Your task to perform on an android device: delete browsing data in the chrome app Image 0: 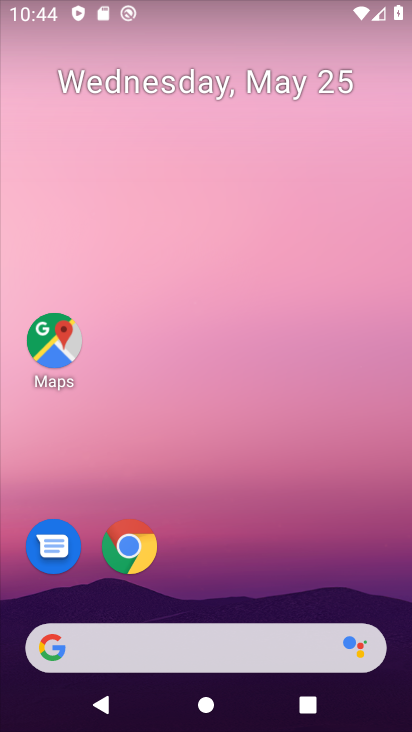
Step 0: click (140, 560)
Your task to perform on an android device: delete browsing data in the chrome app Image 1: 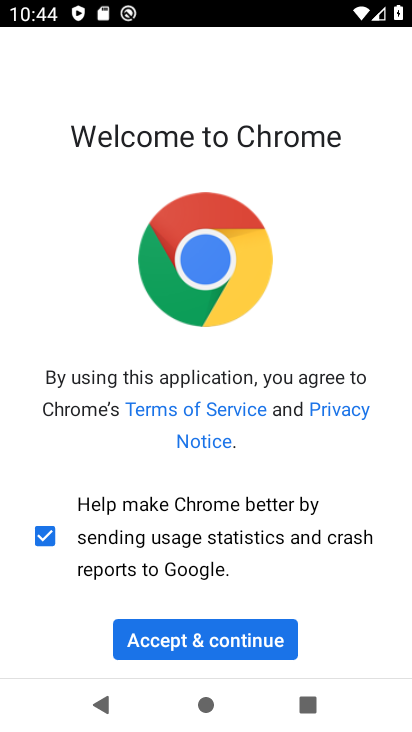
Step 1: click (246, 655)
Your task to perform on an android device: delete browsing data in the chrome app Image 2: 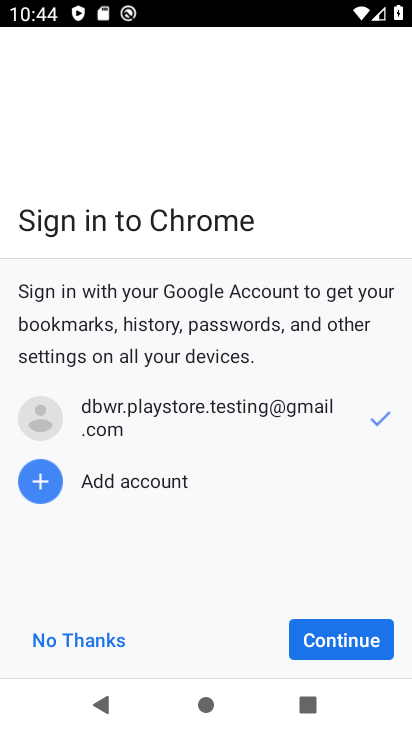
Step 2: click (364, 643)
Your task to perform on an android device: delete browsing data in the chrome app Image 3: 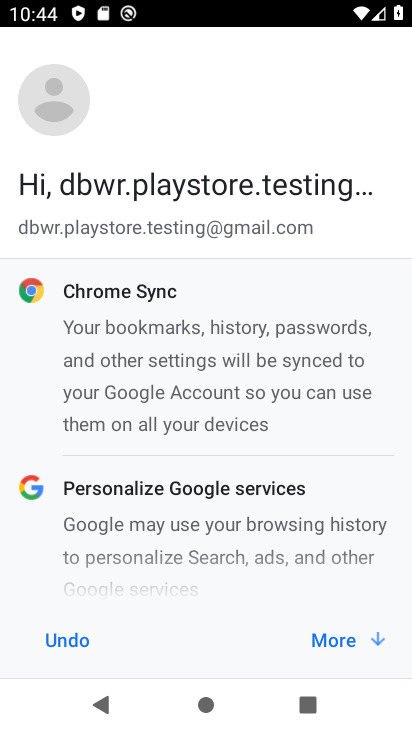
Step 3: click (362, 641)
Your task to perform on an android device: delete browsing data in the chrome app Image 4: 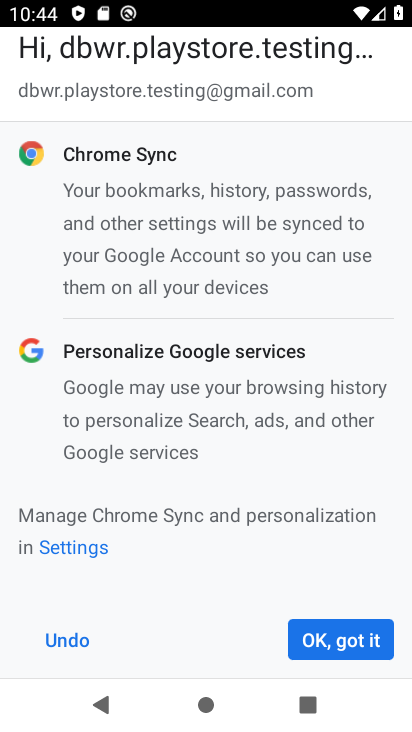
Step 4: click (355, 630)
Your task to perform on an android device: delete browsing data in the chrome app Image 5: 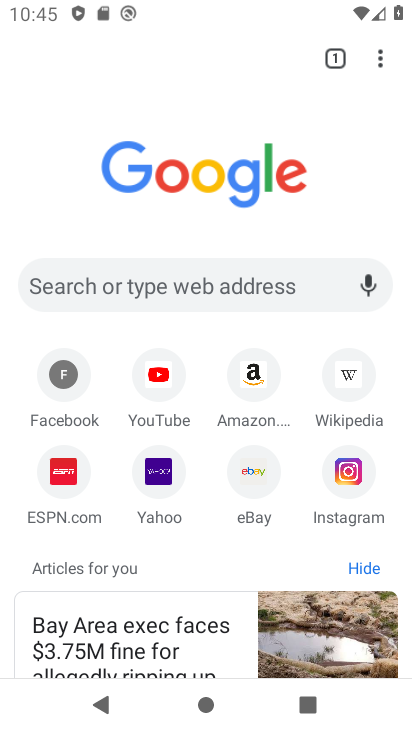
Step 5: drag from (396, 53) to (299, 491)
Your task to perform on an android device: delete browsing data in the chrome app Image 6: 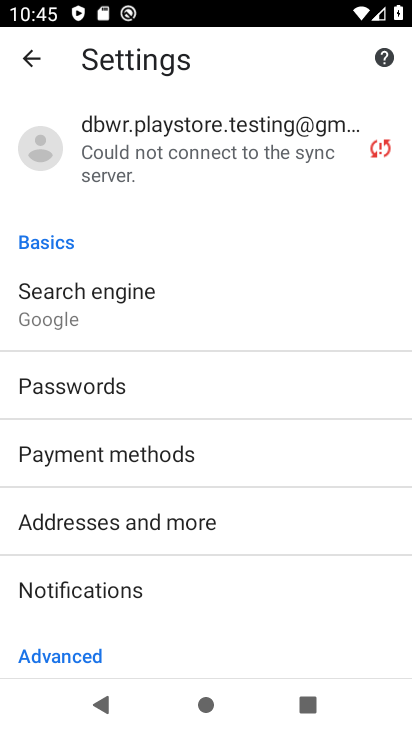
Step 6: drag from (210, 610) to (283, 378)
Your task to perform on an android device: delete browsing data in the chrome app Image 7: 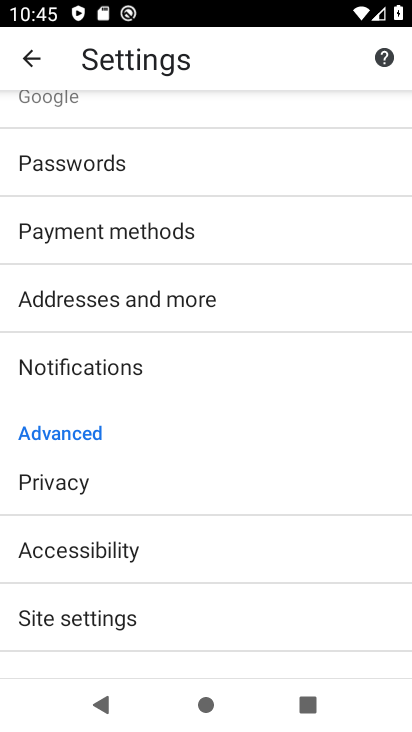
Step 7: click (149, 498)
Your task to perform on an android device: delete browsing data in the chrome app Image 8: 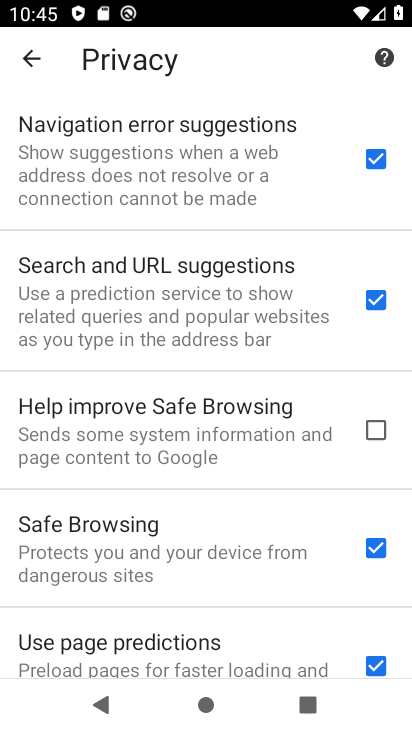
Step 8: drag from (165, 592) to (300, 167)
Your task to perform on an android device: delete browsing data in the chrome app Image 9: 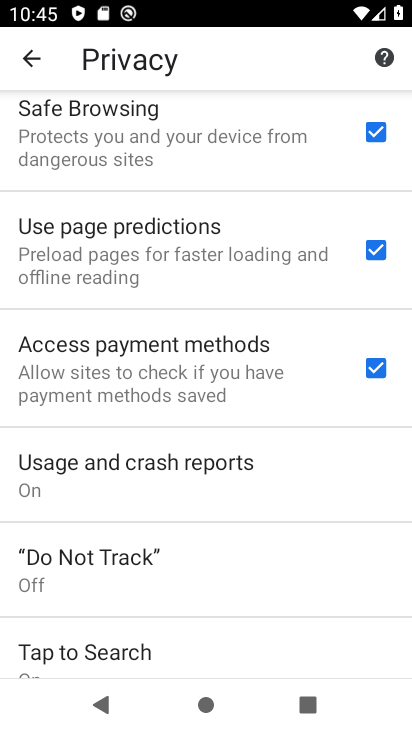
Step 9: drag from (216, 618) to (325, 185)
Your task to perform on an android device: delete browsing data in the chrome app Image 10: 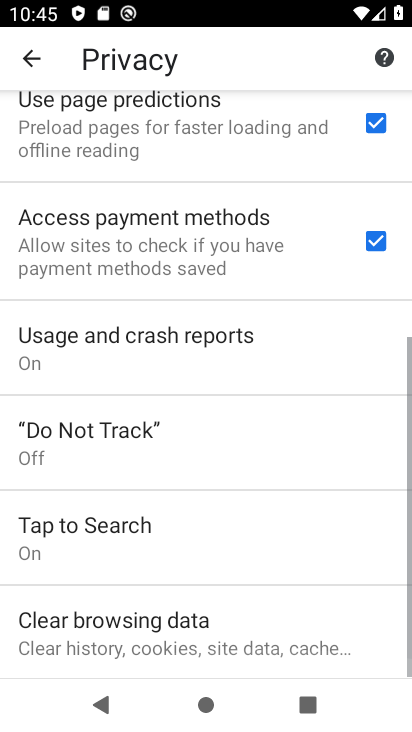
Step 10: drag from (230, 639) to (303, 313)
Your task to perform on an android device: delete browsing data in the chrome app Image 11: 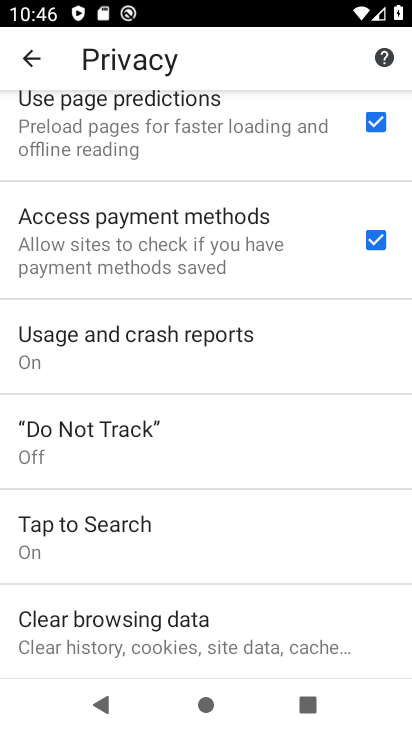
Step 11: click (180, 625)
Your task to perform on an android device: delete browsing data in the chrome app Image 12: 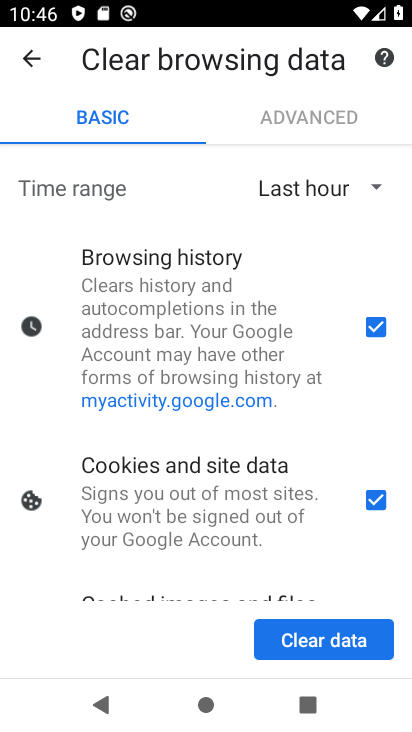
Step 12: drag from (169, 537) to (246, 492)
Your task to perform on an android device: delete browsing data in the chrome app Image 13: 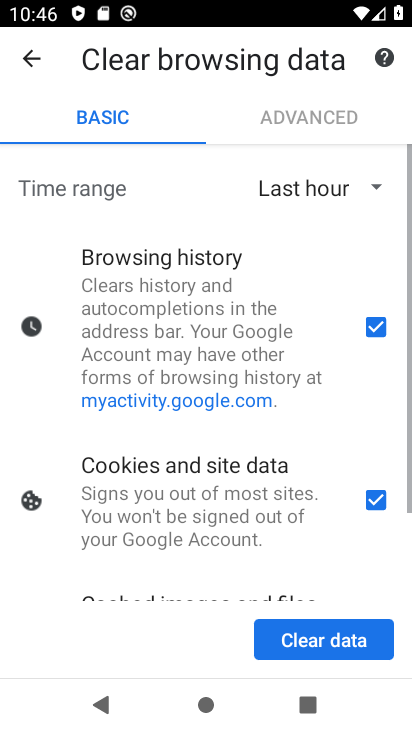
Step 13: click (331, 642)
Your task to perform on an android device: delete browsing data in the chrome app Image 14: 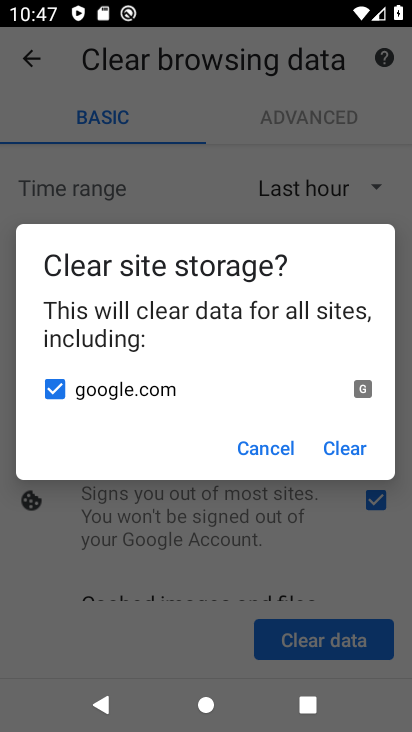
Step 14: click (361, 434)
Your task to perform on an android device: delete browsing data in the chrome app Image 15: 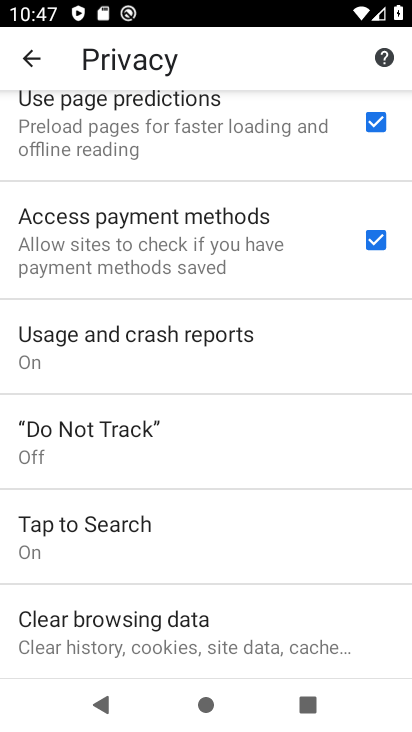
Step 15: task complete